Your task to perform on an android device: Open network settings Image 0: 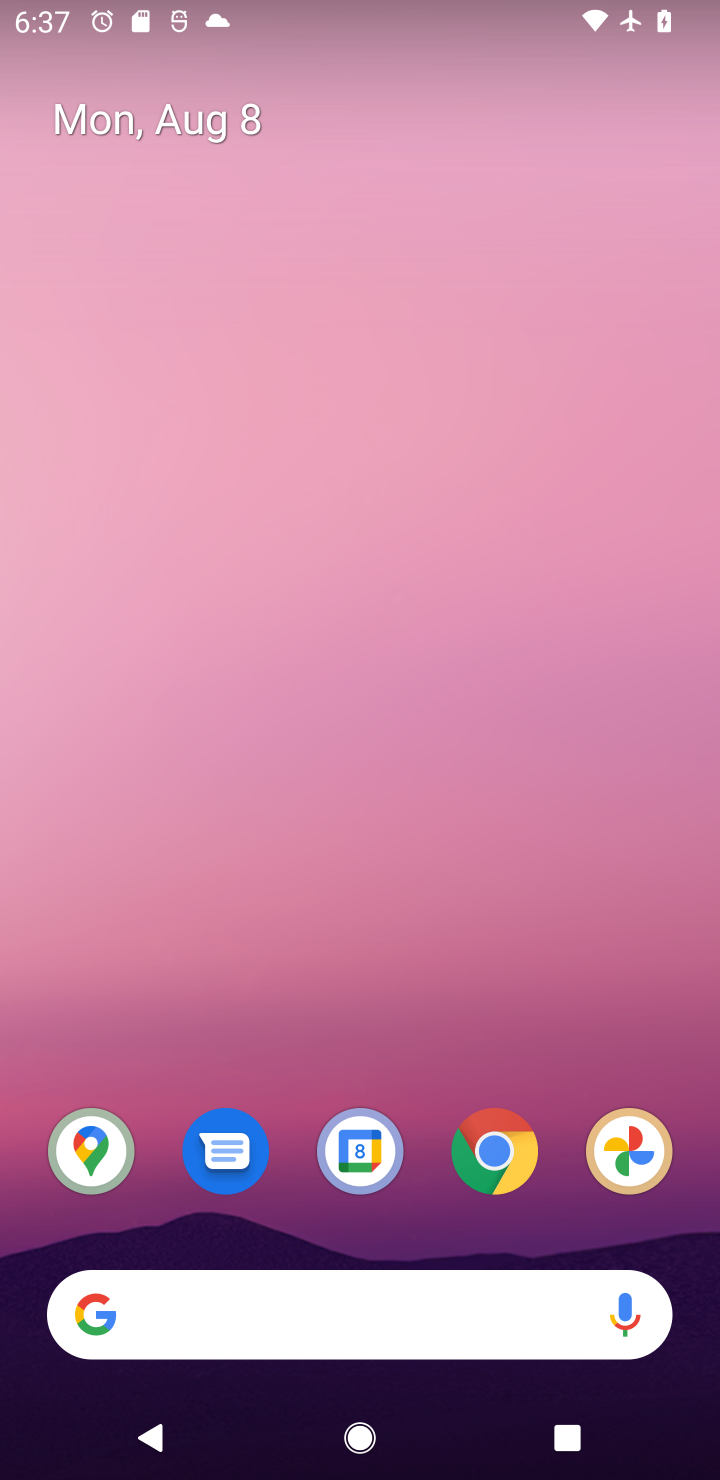
Step 0: drag from (356, 469) to (356, 191)
Your task to perform on an android device: Open network settings Image 1: 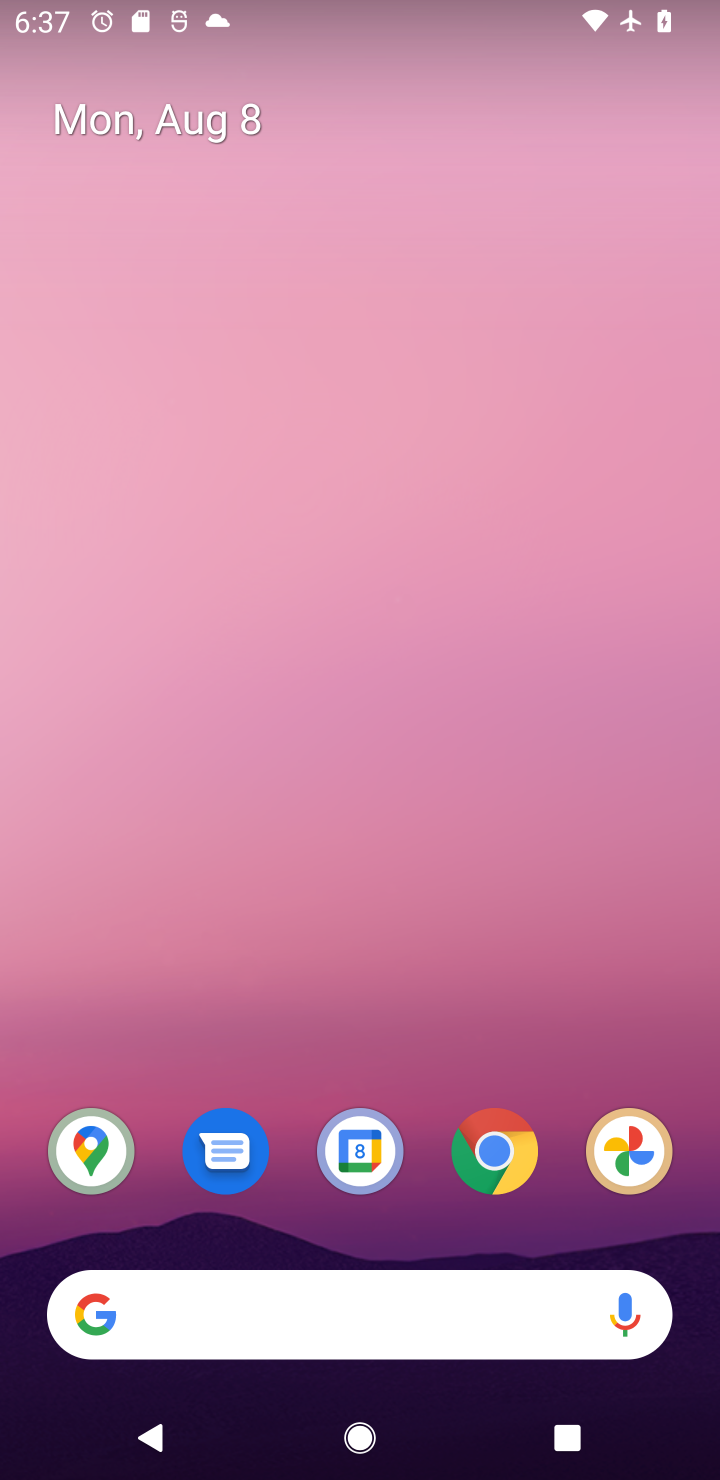
Step 1: drag from (271, 1031) to (286, 431)
Your task to perform on an android device: Open network settings Image 2: 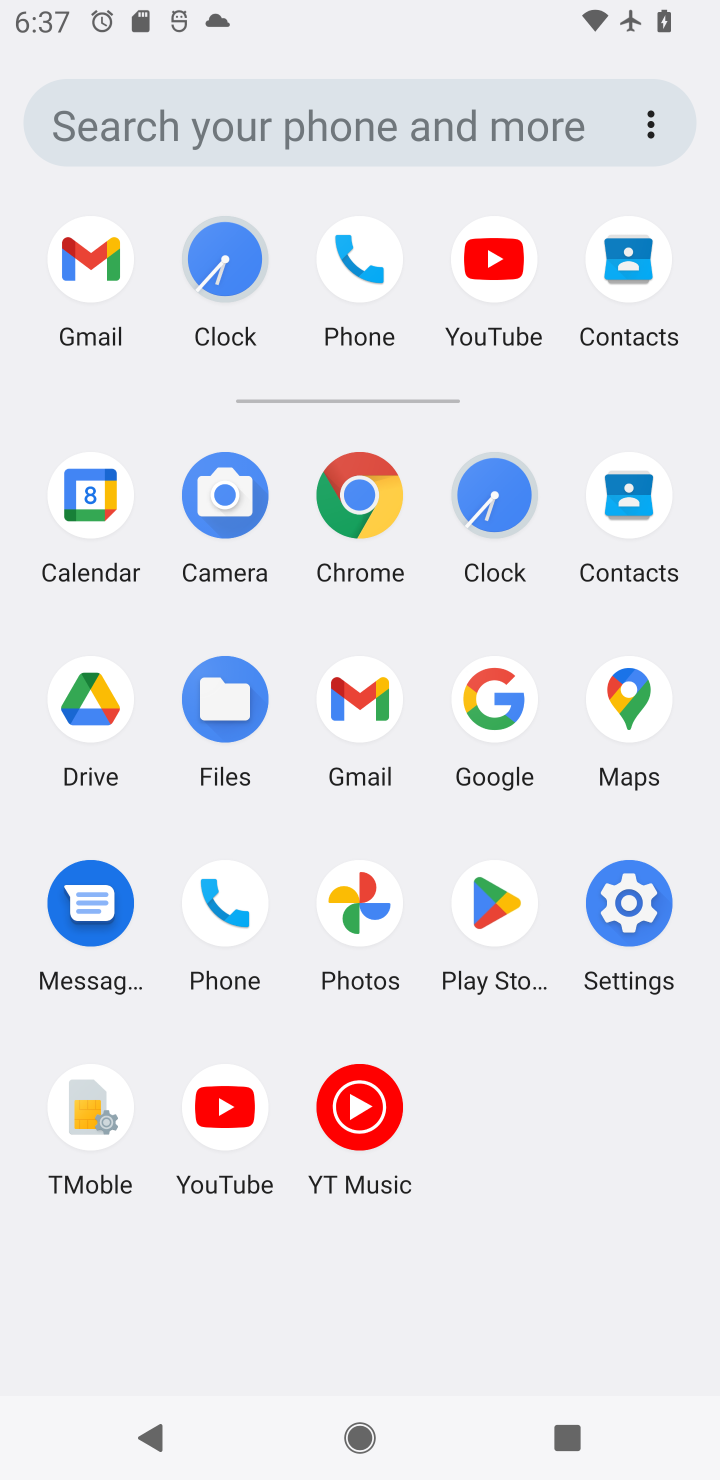
Step 2: click (676, 921)
Your task to perform on an android device: Open network settings Image 3: 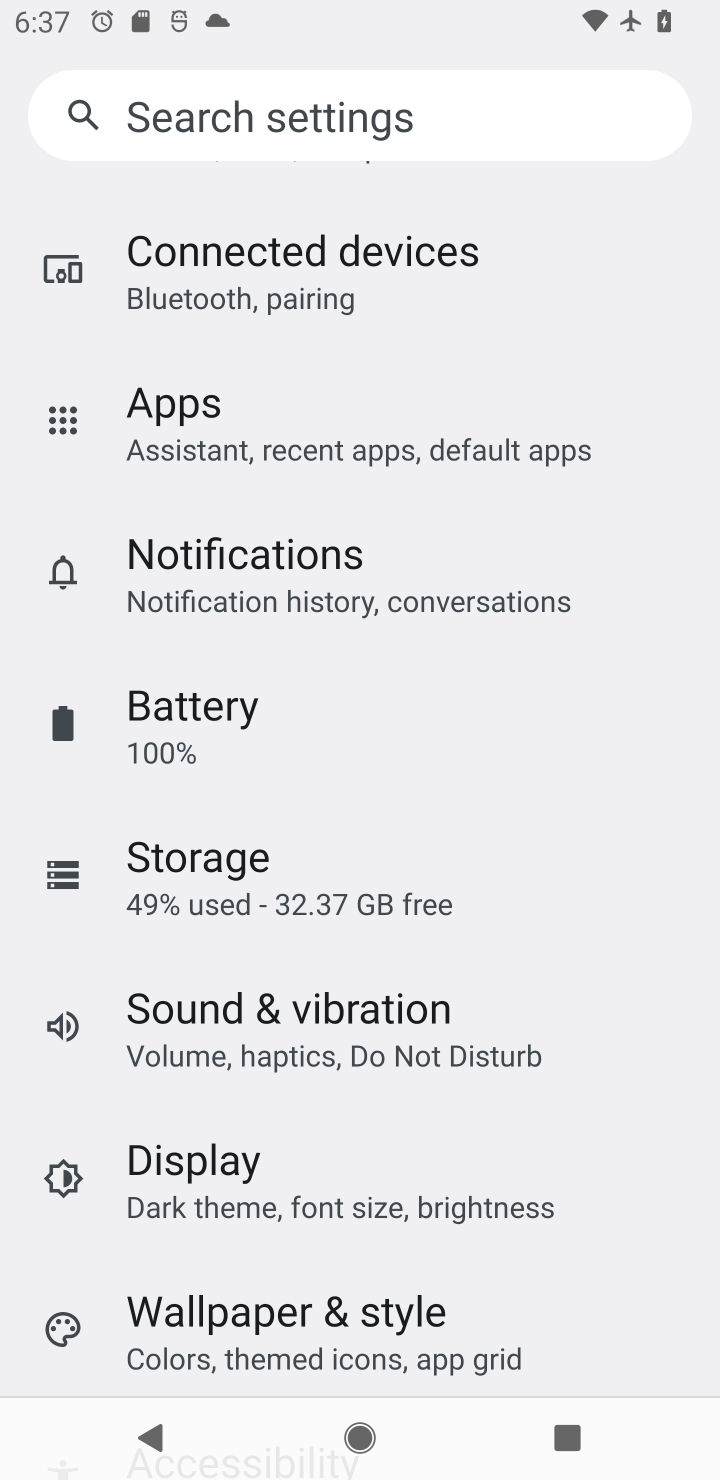
Step 3: drag from (346, 484) to (381, 1008)
Your task to perform on an android device: Open network settings Image 4: 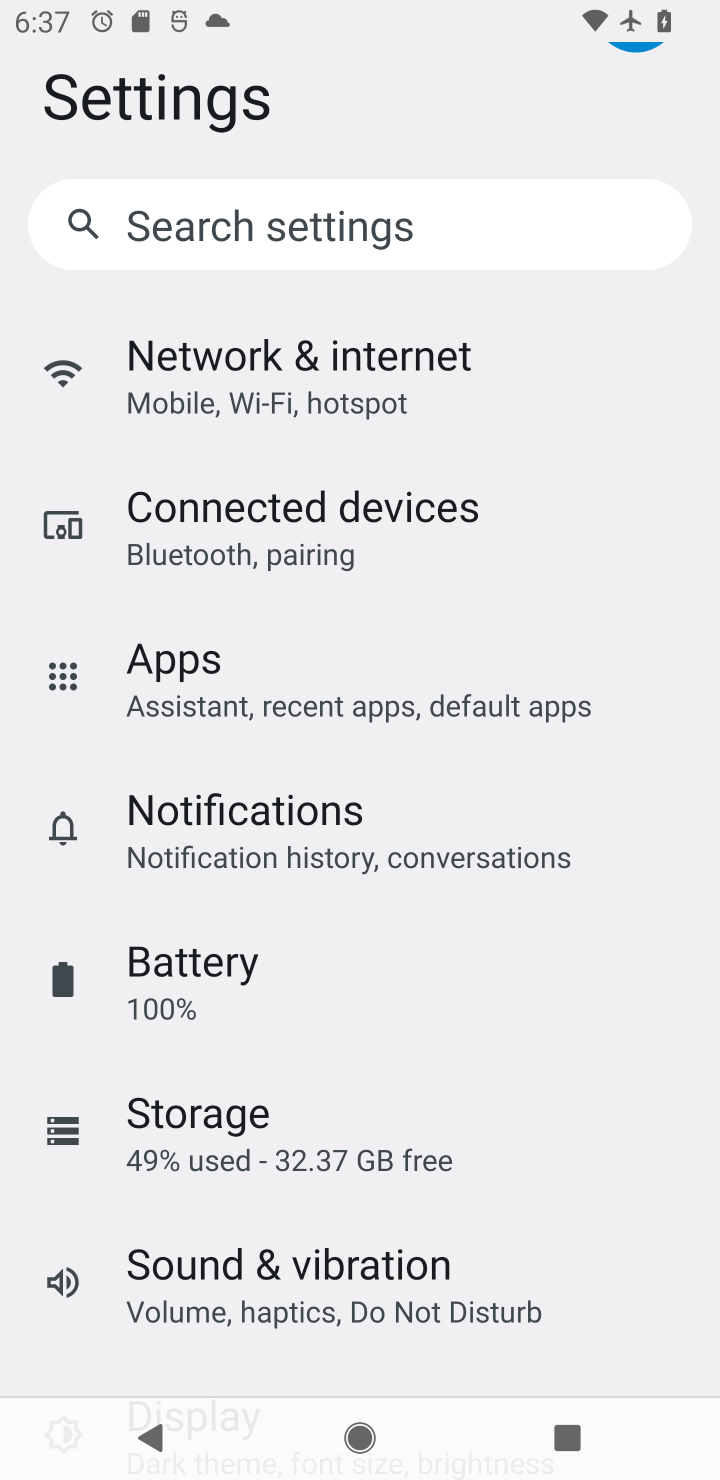
Step 4: click (232, 403)
Your task to perform on an android device: Open network settings Image 5: 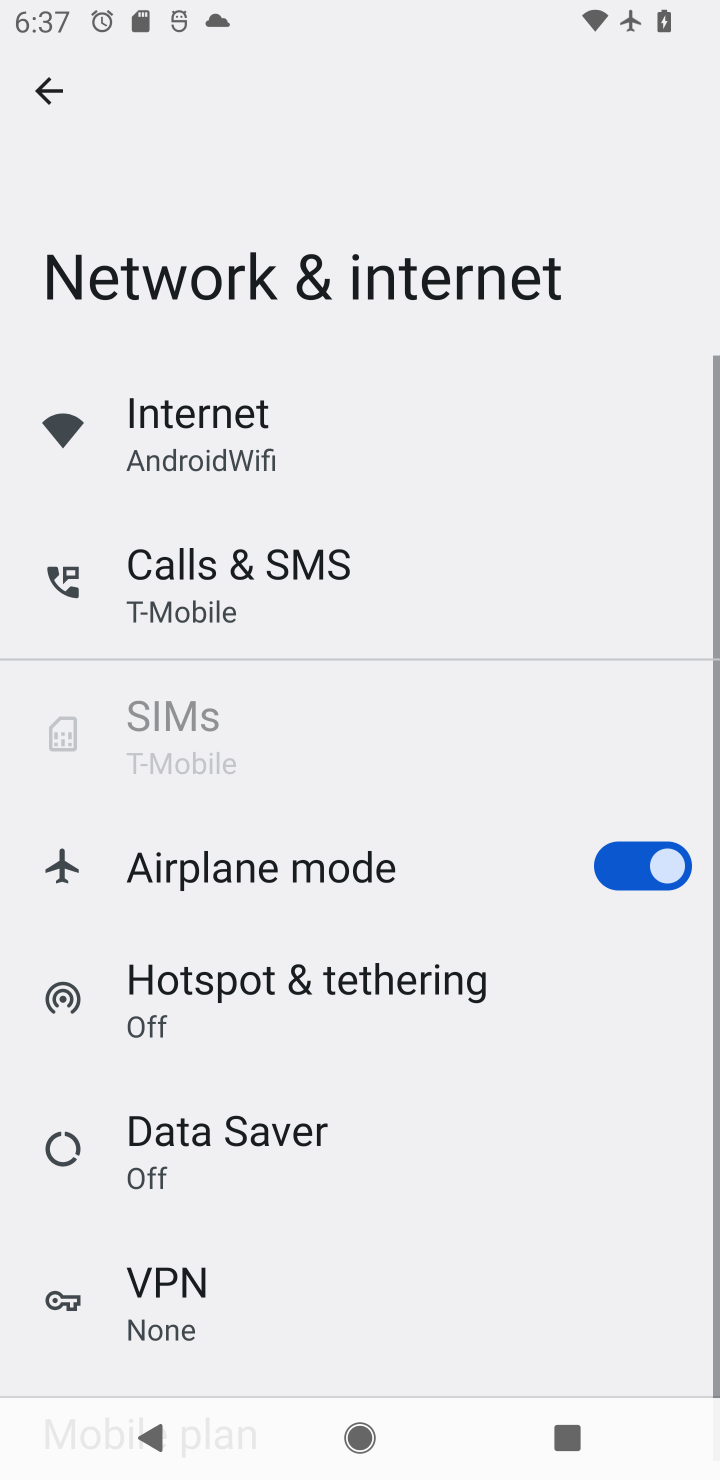
Step 5: task complete